Your task to perform on an android device: search for starred emails in the gmail app Image 0: 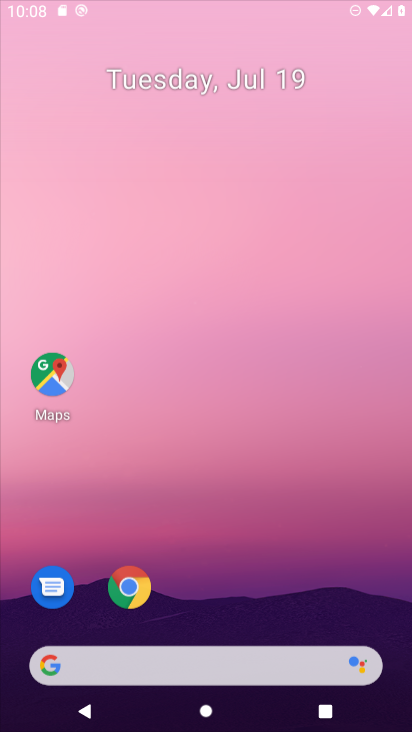
Step 0: click (181, 0)
Your task to perform on an android device: search for starred emails in the gmail app Image 1: 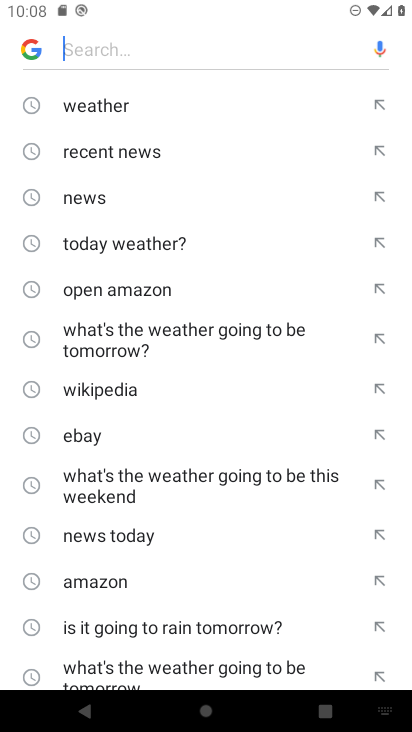
Step 1: press back button
Your task to perform on an android device: search for starred emails in the gmail app Image 2: 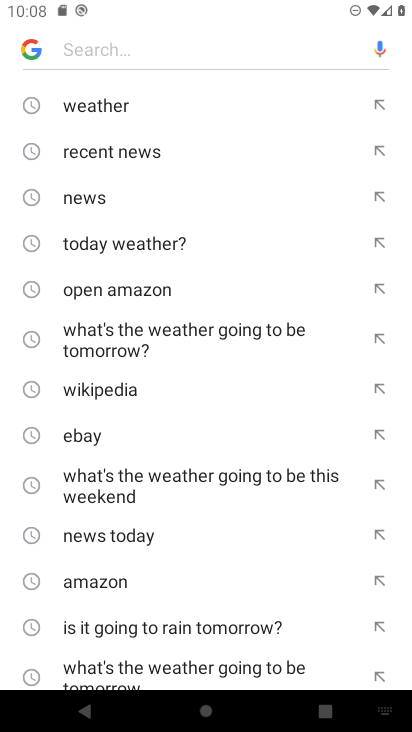
Step 2: press back button
Your task to perform on an android device: search for starred emails in the gmail app Image 3: 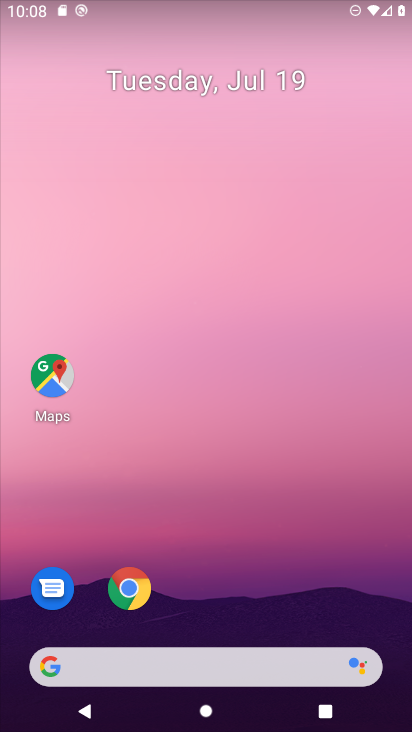
Step 3: drag from (231, 634) to (210, 129)
Your task to perform on an android device: search for starred emails in the gmail app Image 4: 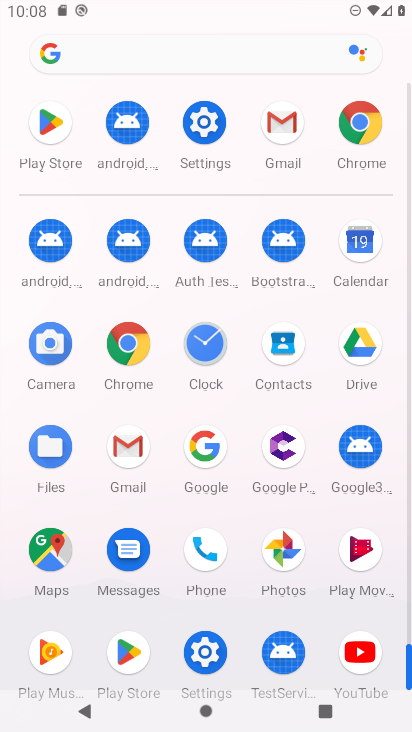
Step 4: click (134, 460)
Your task to perform on an android device: search for starred emails in the gmail app Image 5: 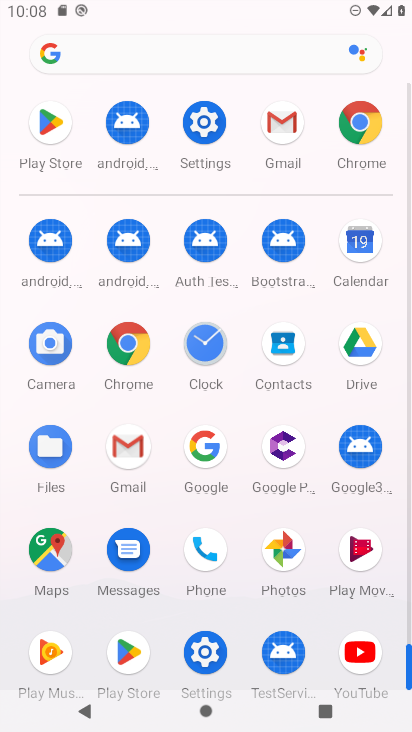
Step 5: click (132, 457)
Your task to perform on an android device: search for starred emails in the gmail app Image 6: 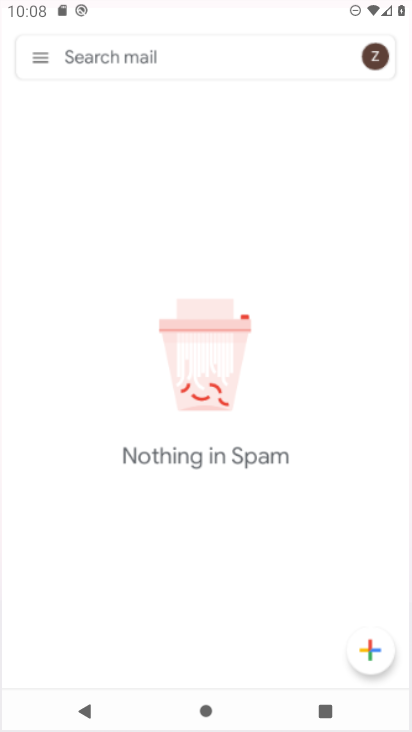
Step 6: click (132, 457)
Your task to perform on an android device: search for starred emails in the gmail app Image 7: 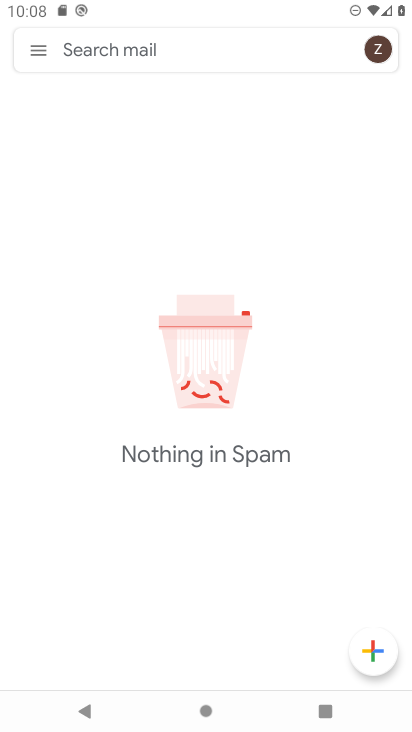
Step 7: click (34, 42)
Your task to perform on an android device: search for starred emails in the gmail app Image 8: 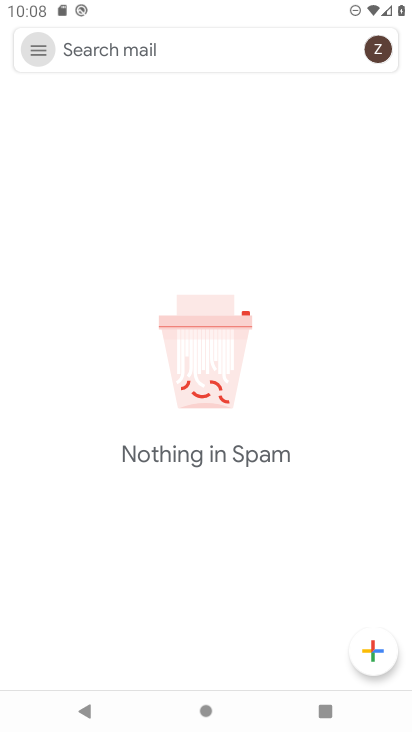
Step 8: click (34, 42)
Your task to perform on an android device: search for starred emails in the gmail app Image 9: 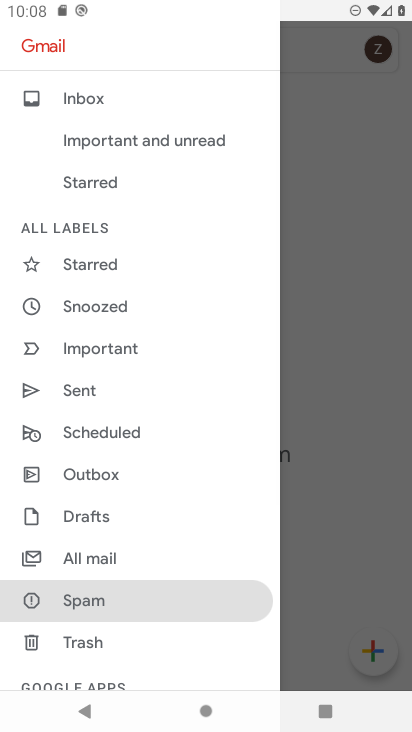
Step 9: click (76, 262)
Your task to perform on an android device: search for starred emails in the gmail app Image 10: 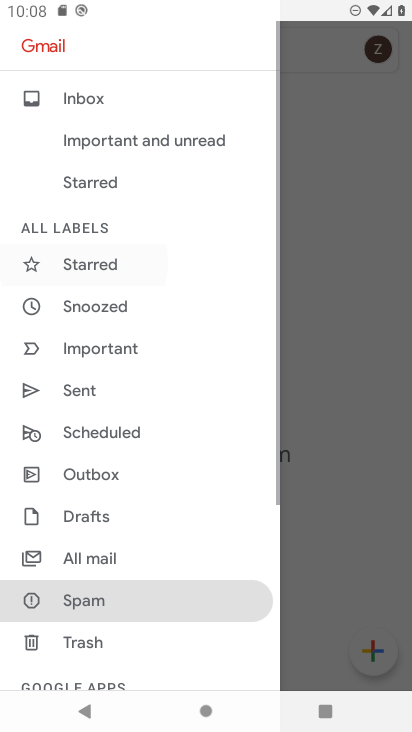
Step 10: click (76, 262)
Your task to perform on an android device: search for starred emails in the gmail app Image 11: 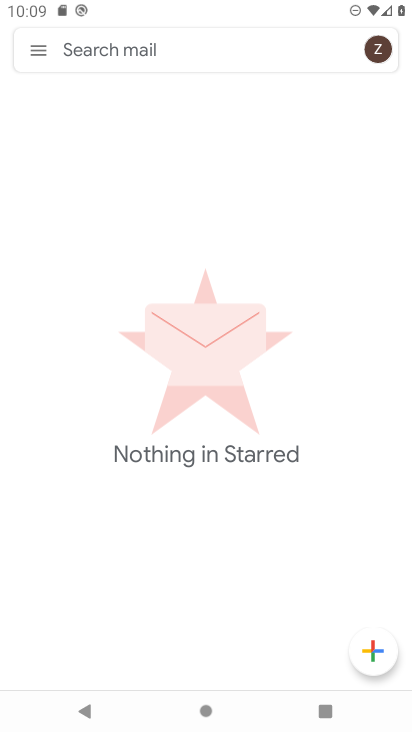
Step 11: task complete